Your task to perform on an android device: toggle improve location accuracy Image 0: 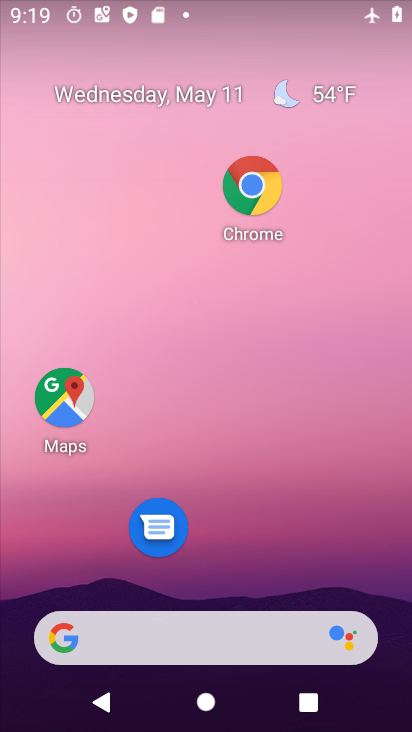
Step 0: drag from (248, 545) to (248, 79)
Your task to perform on an android device: toggle improve location accuracy Image 1: 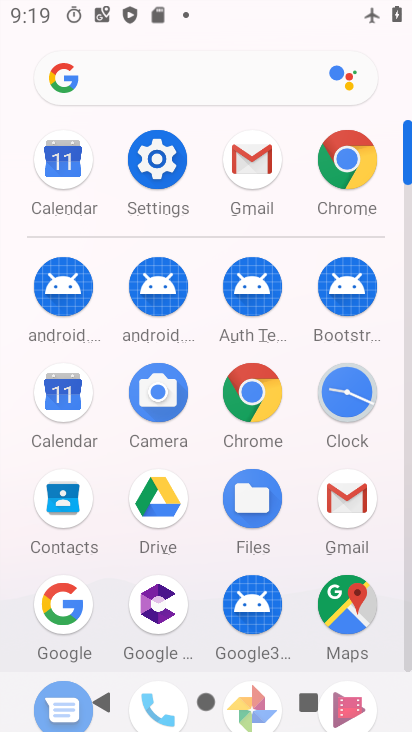
Step 1: click (163, 158)
Your task to perform on an android device: toggle improve location accuracy Image 2: 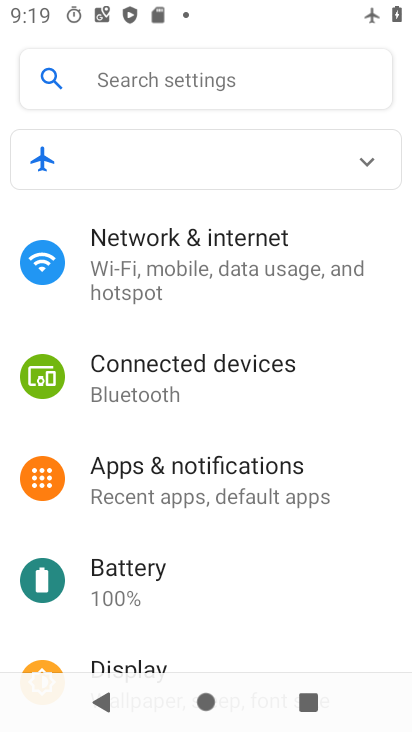
Step 2: drag from (229, 588) to (252, 6)
Your task to perform on an android device: toggle improve location accuracy Image 3: 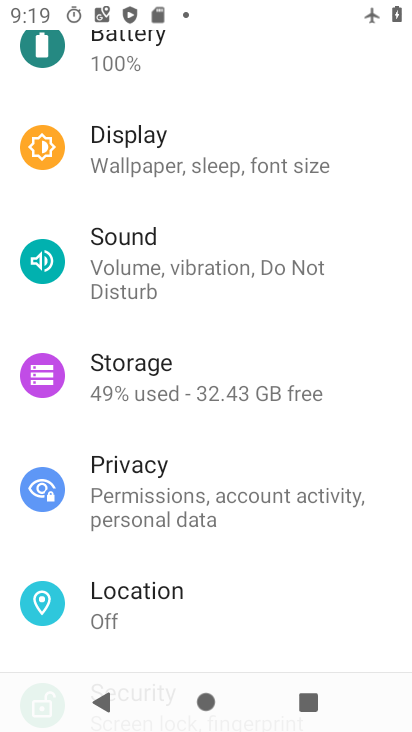
Step 3: drag from (232, 569) to (214, 335)
Your task to perform on an android device: toggle improve location accuracy Image 4: 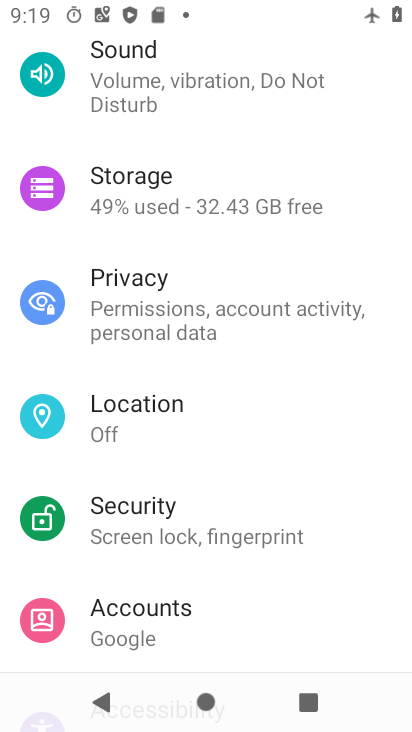
Step 4: click (150, 413)
Your task to perform on an android device: toggle improve location accuracy Image 5: 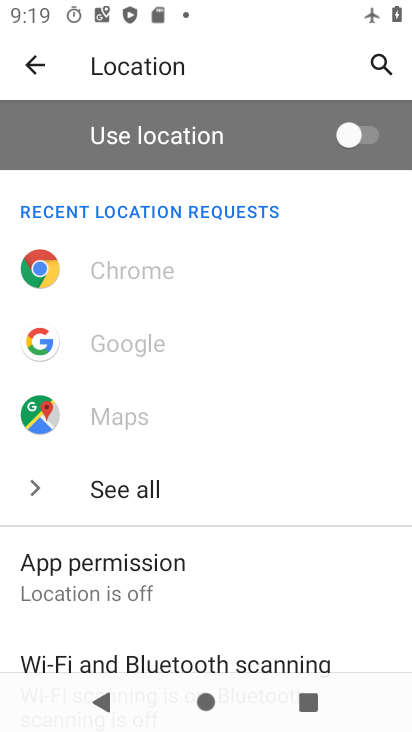
Step 5: drag from (203, 616) to (183, 319)
Your task to perform on an android device: toggle improve location accuracy Image 6: 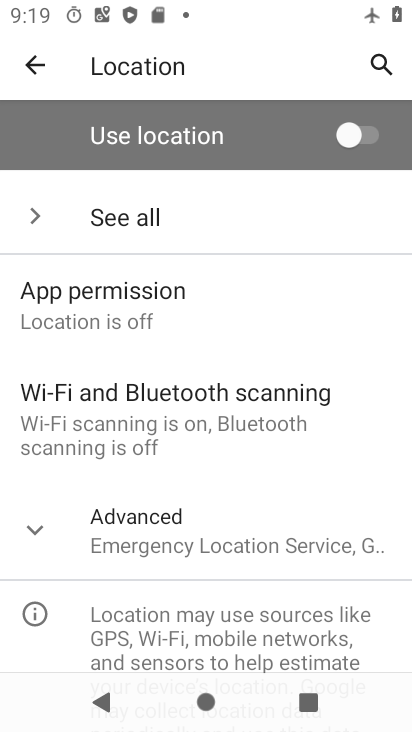
Step 6: click (109, 536)
Your task to perform on an android device: toggle improve location accuracy Image 7: 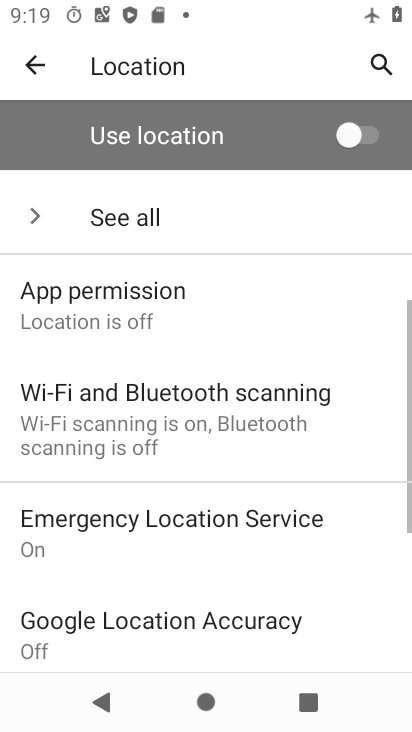
Step 7: drag from (228, 533) to (232, 221)
Your task to perform on an android device: toggle improve location accuracy Image 8: 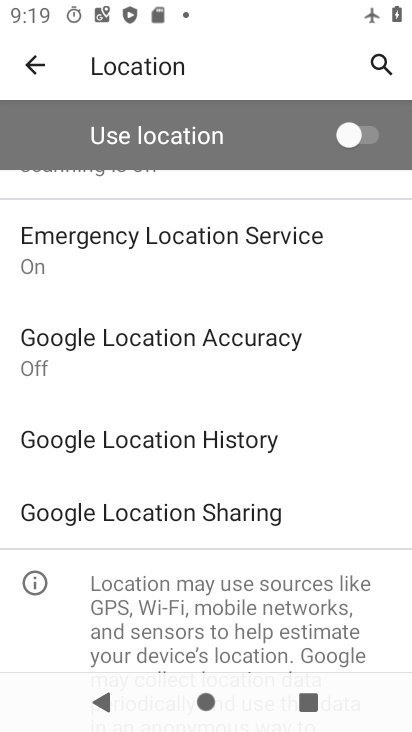
Step 8: click (169, 348)
Your task to perform on an android device: toggle improve location accuracy Image 9: 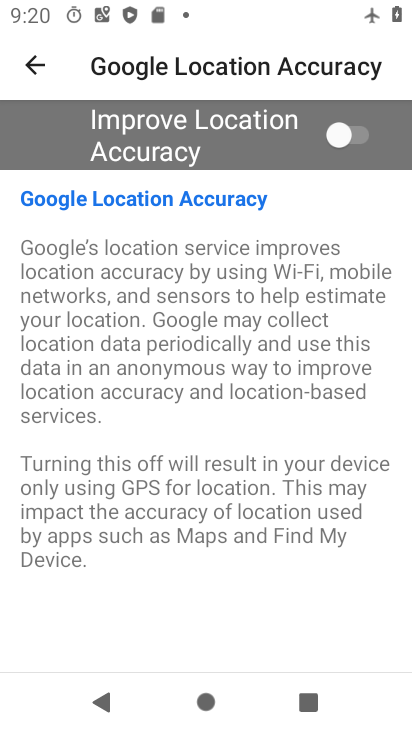
Step 9: click (343, 134)
Your task to perform on an android device: toggle improve location accuracy Image 10: 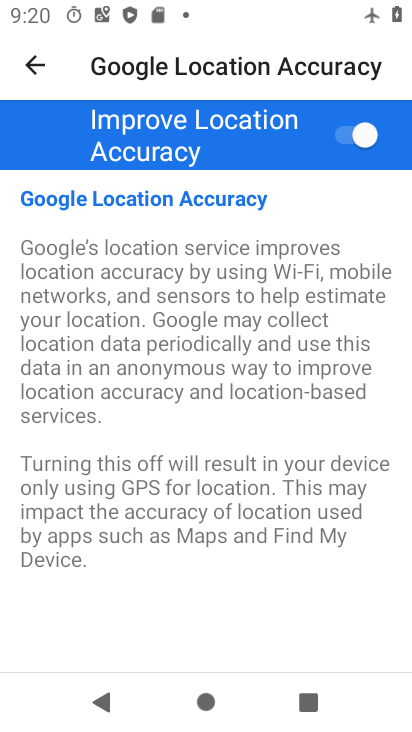
Step 10: task complete